Your task to perform on an android device: star an email in the gmail app Image 0: 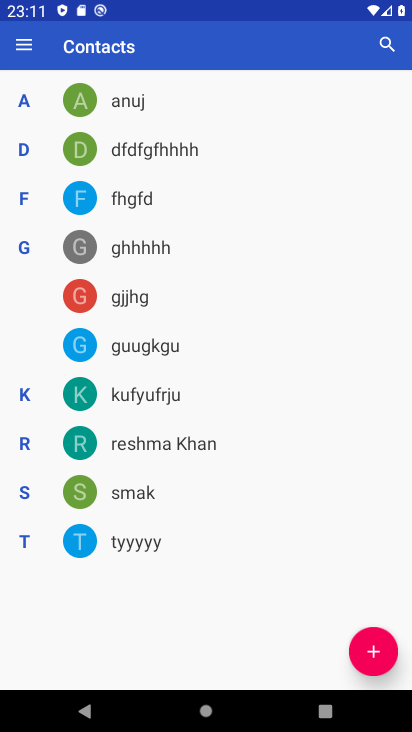
Step 0: press home button
Your task to perform on an android device: star an email in the gmail app Image 1: 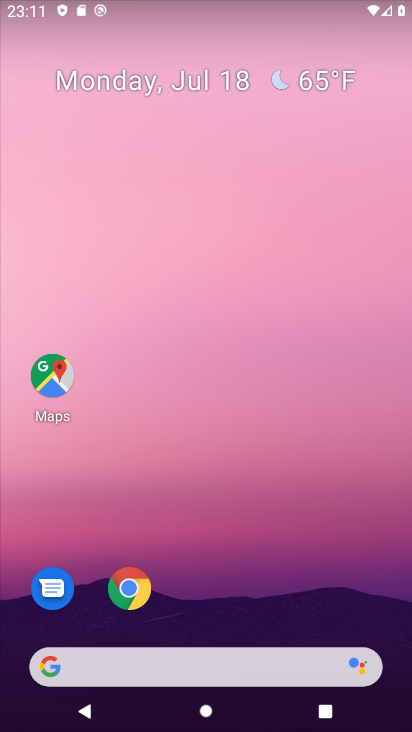
Step 1: drag from (267, 606) to (222, 99)
Your task to perform on an android device: star an email in the gmail app Image 2: 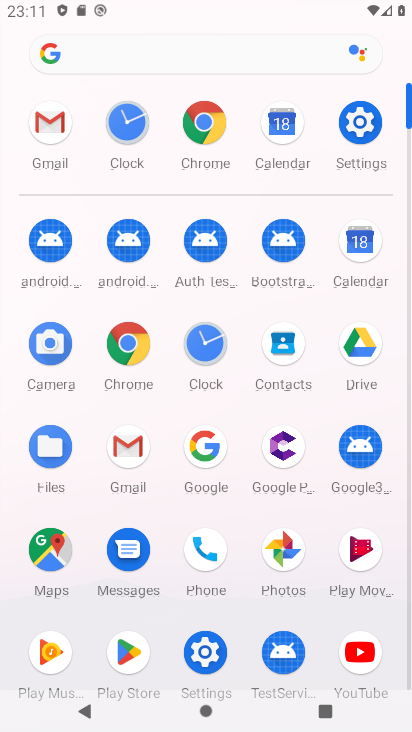
Step 2: click (57, 122)
Your task to perform on an android device: star an email in the gmail app Image 3: 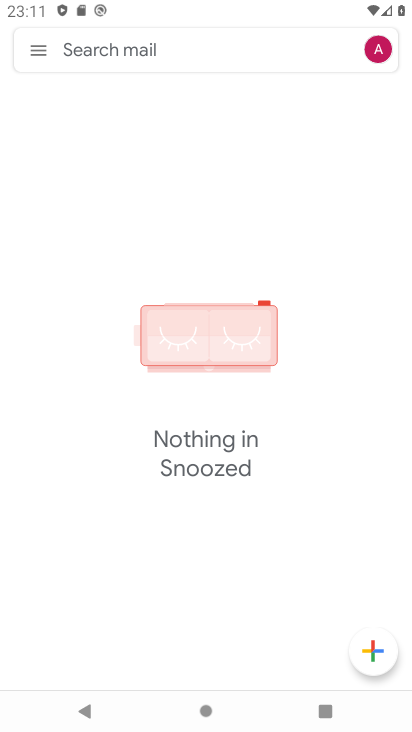
Step 3: click (31, 44)
Your task to perform on an android device: star an email in the gmail app Image 4: 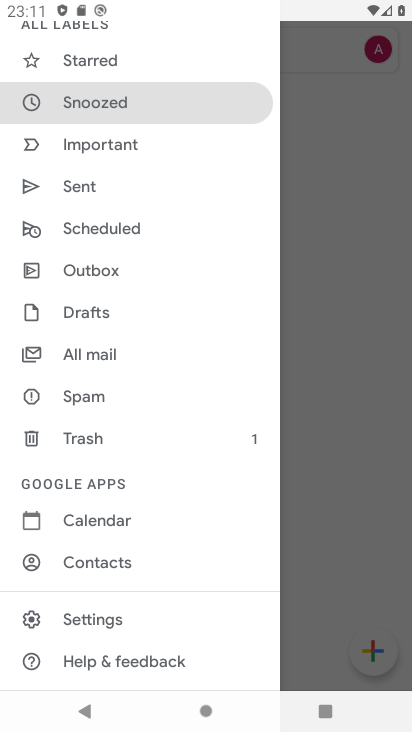
Step 4: click (95, 56)
Your task to perform on an android device: star an email in the gmail app Image 5: 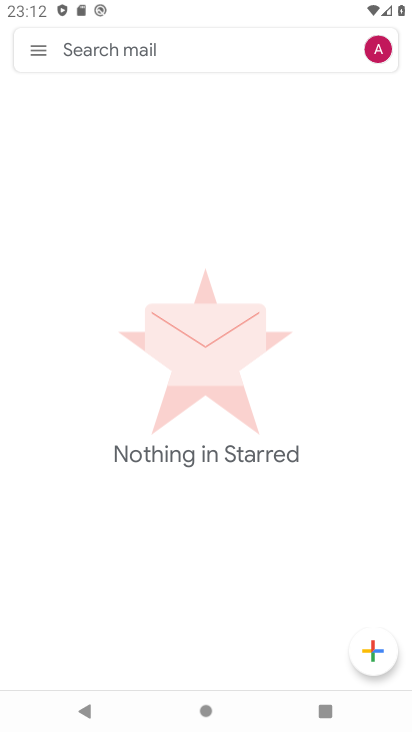
Step 5: click (29, 48)
Your task to perform on an android device: star an email in the gmail app Image 6: 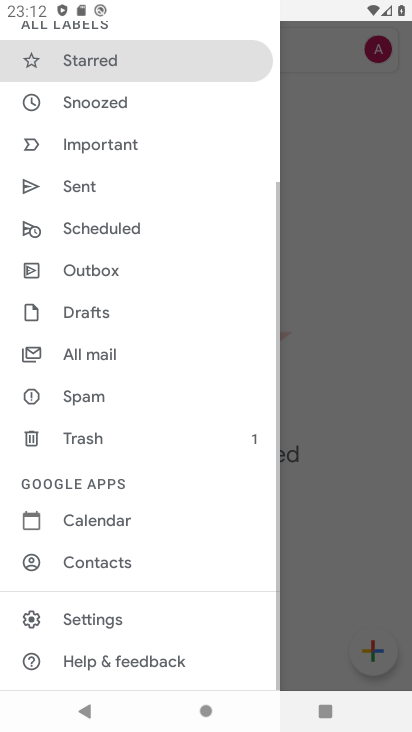
Step 6: click (103, 357)
Your task to perform on an android device: star an email in the gmail app Image 7: 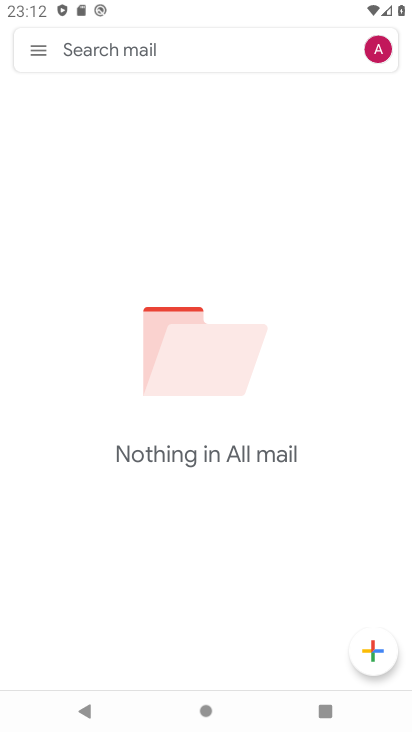
Step 7: task complete